Your task to perform on an android device: see tabs open on other devices in the chrome app Image 0: 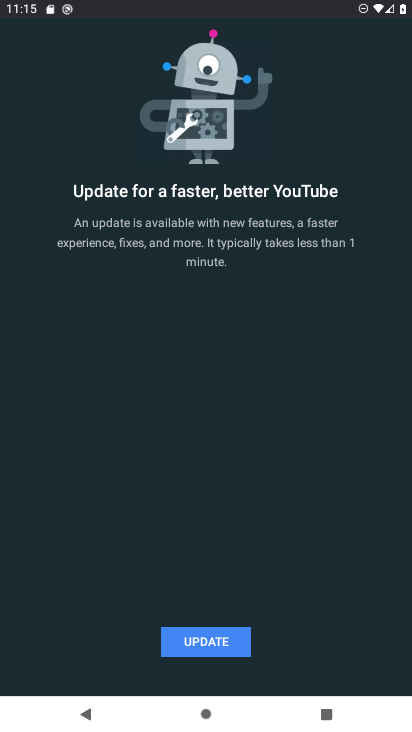
Step 0: press back button
Your task to perform on an android device: see tabs open on other devices in the chrome app Image 1: 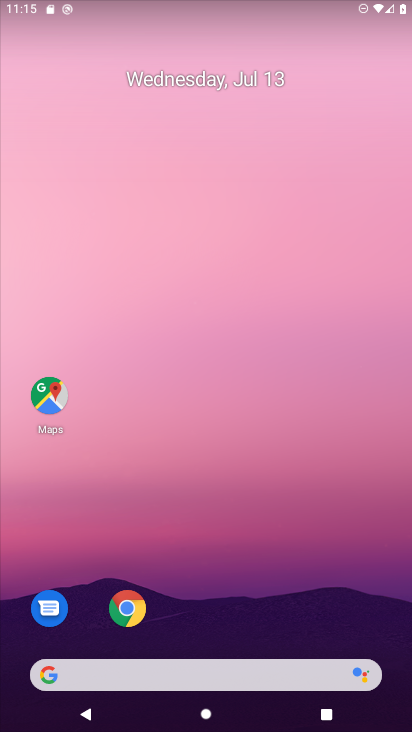
Step 1: click (115, 611)
Your task to perform on an android device: see tabs open on other devices in the chrome app Image 2: 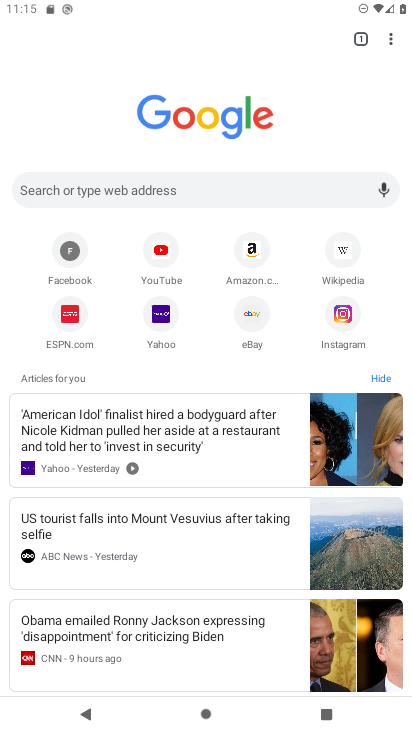
Step 2: click (395, 42)
Your task to perform on an android device: see tabs open on other devices in the chrome app Image 3: 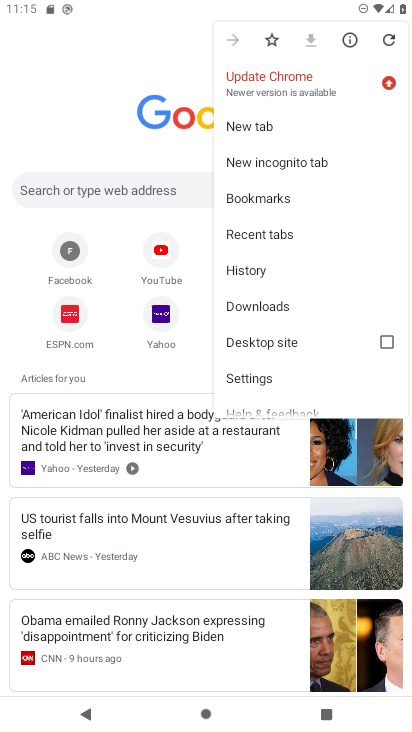
Step 3: click (256, 237)
Your task to perform on an android device: see tabs open on other devices in the chrome app Image 4: 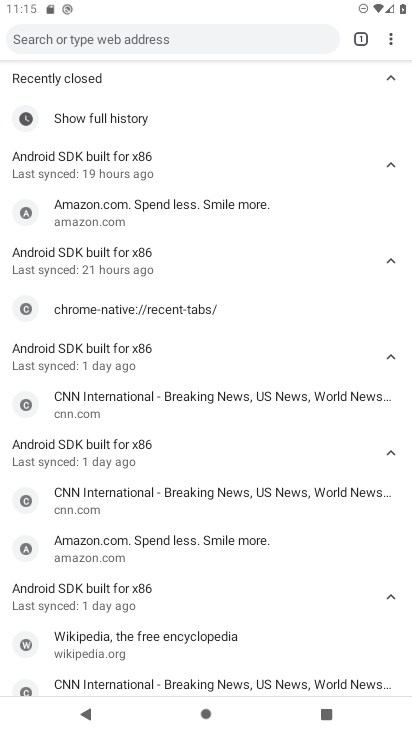
Step 4: task complete